Your task to perform on an android device: toggle show notifications on the lock screen Image 0: 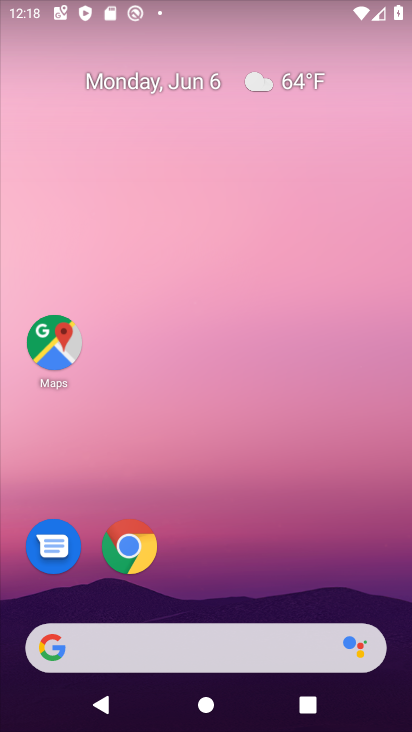
Step 0: drag from (270, 554) to (265, 221)
Your task to perform on an android device: toggle show notifications on the lock screen Image 1: 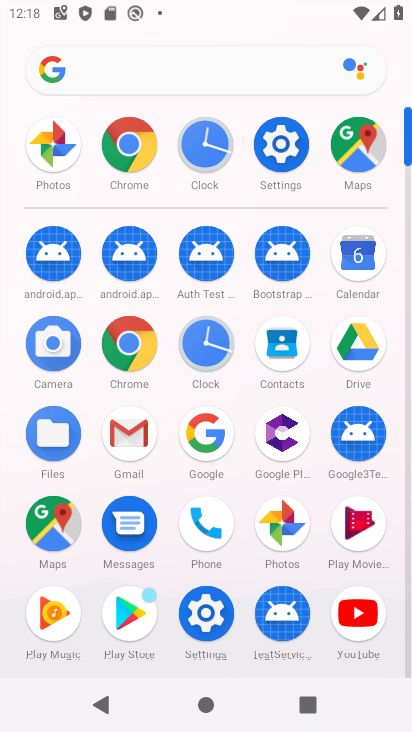
Step 1: click (264, 144)
Your task to perform on an android device: toggle show notifications on the lock screen Image 2: 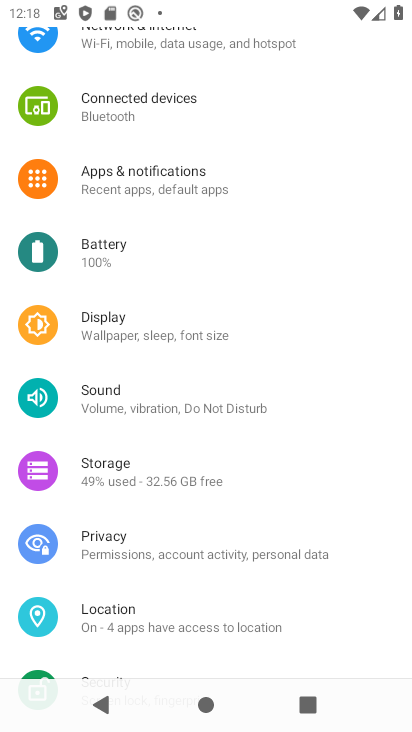
Step 2: click (145, 175)
Your task to perform on an android device: toggle show notifications on the lock screen Image 3: 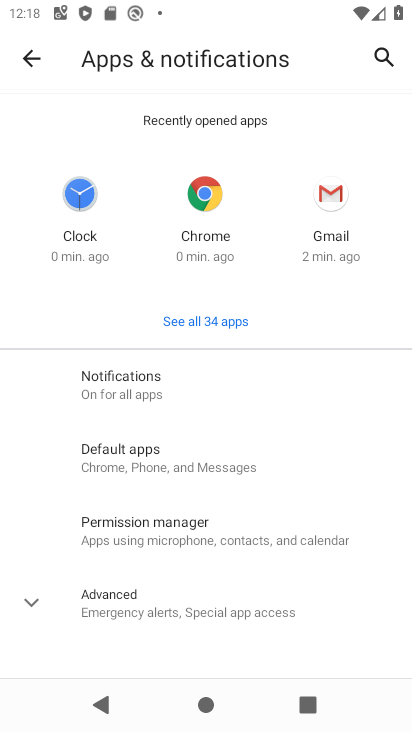
Step 3: click (166, 387)
Your task to perform on an android device: toggle show notifications on the lock screen Image 4: 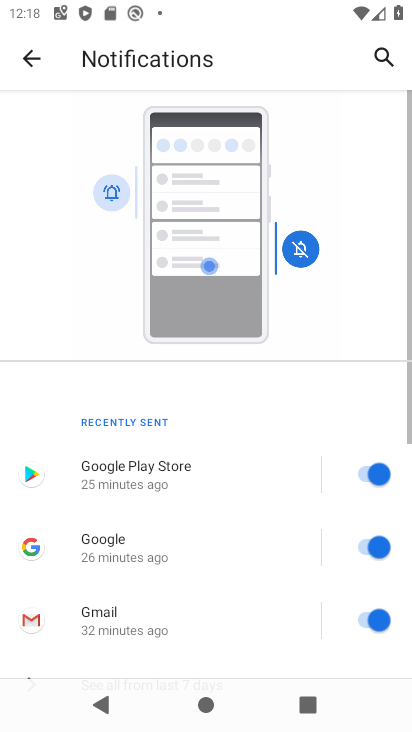
Step 4: drag from (206, 604) to (217, 282)
Your task to perform on an android device: toggle show notifications on the lock screen Image 5: 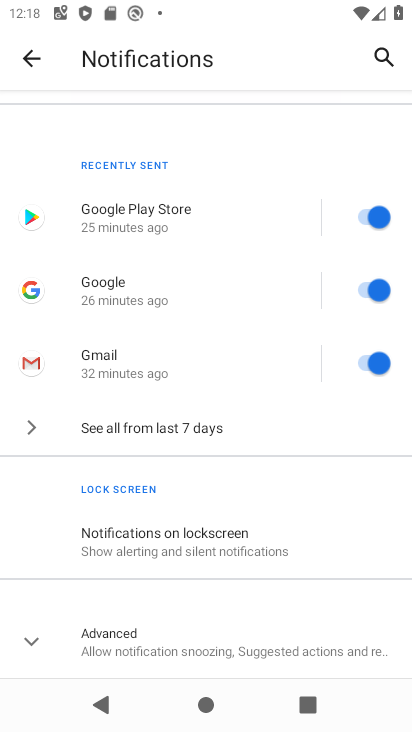
Step 5: click (154, 546)
Your task to perform on an android device: toggle show notifications on the lock screen Image 6: 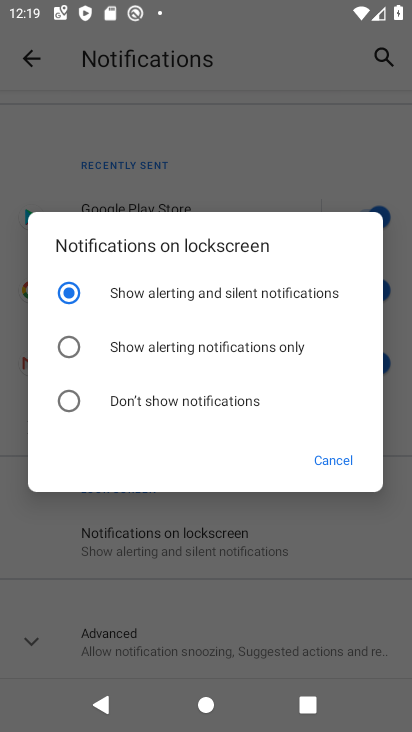
Step 6: task complete